Your task to perform on an android device: change text size in settings app Image 0: 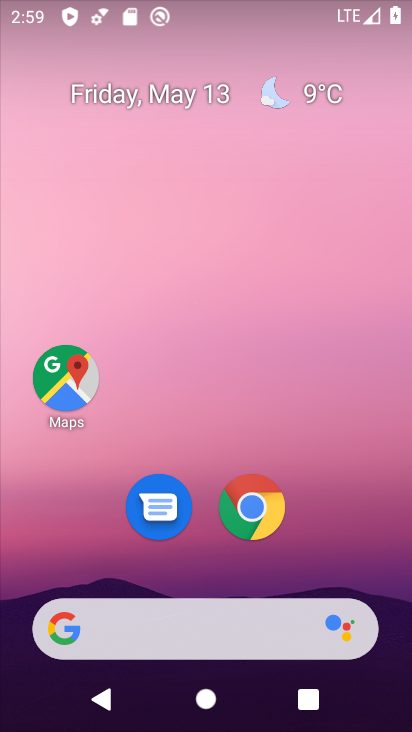
Step 0: drag from (251, 653) to (158, 69)
Your task to perform on an android device: change text size in settings app Image 1: 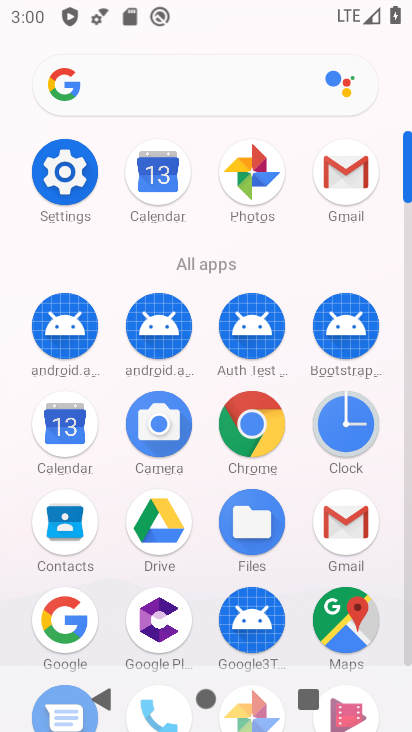
Step 1: click (74, 185)
Your task to perform on an android device: change text size in settings app Image 2: 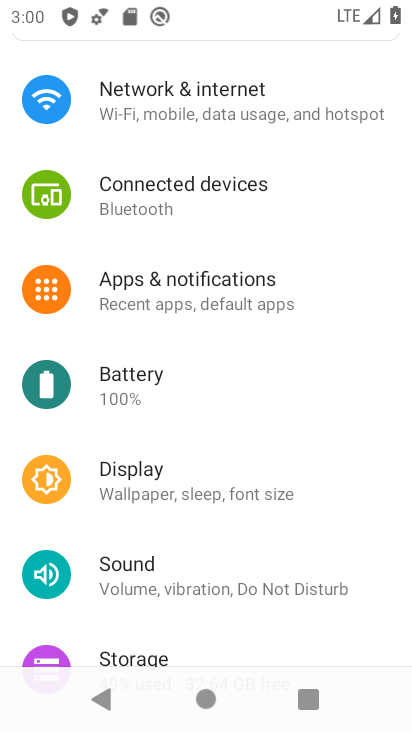
Step 2: click (220, 487)
Your task to perform on an android device: change text size in settings app Image 3: 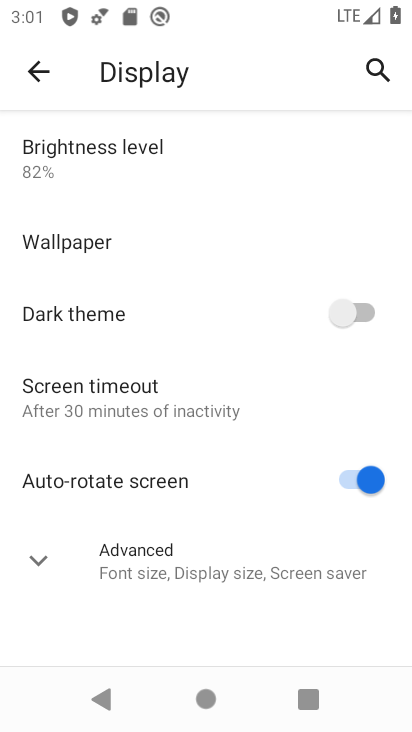
Step 3: click (244, 558)
Your task to perform on an android device: change text size in settings app Image 4: 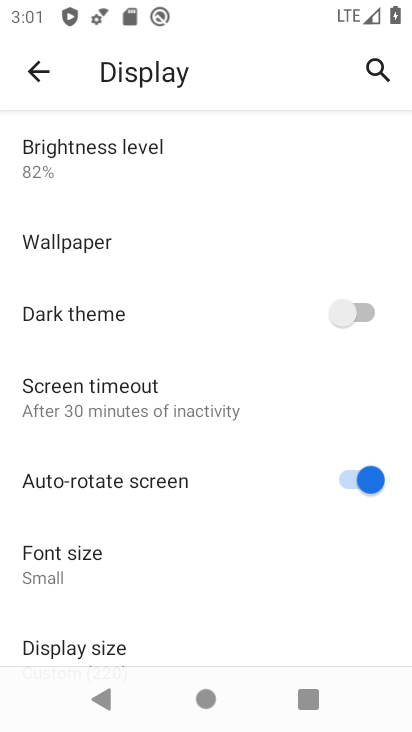
Step 4: click (95, 566)
Your task to perform on an android device: change text size in settings app Image 5: 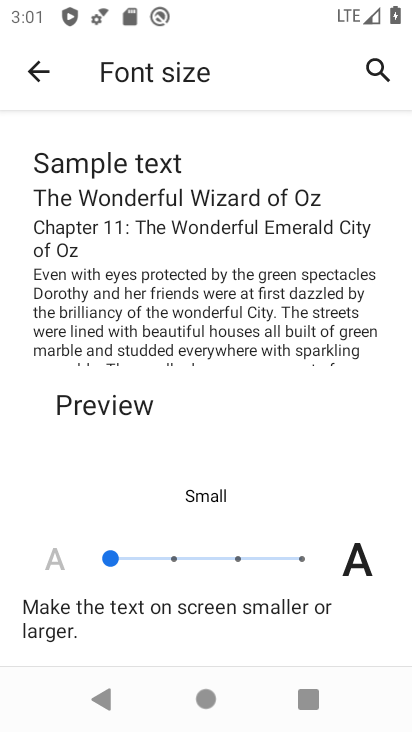
Step 5: click (172, 554)
Your task to perform on an android device: change text size in settings app Image 6: 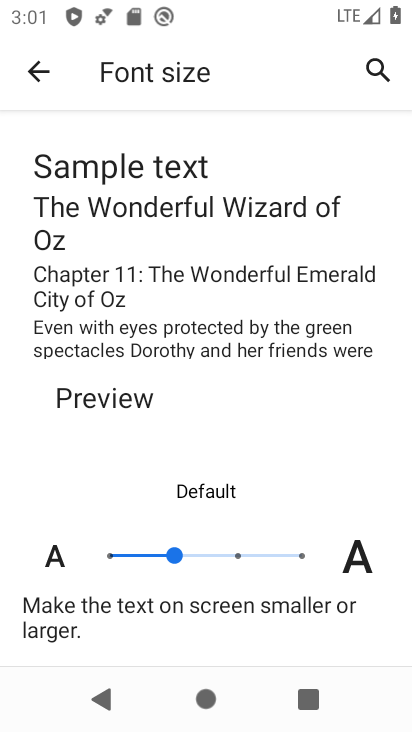
Step 6: task complete